Your task to perform on an android device: toggle notification dots Image 0: 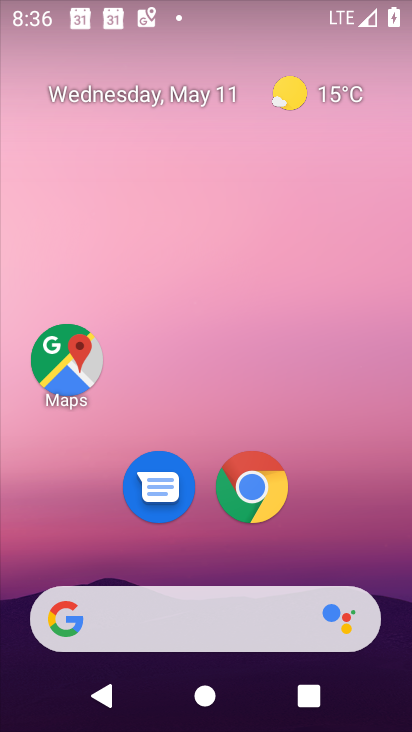
Step 0: drag from (266, 649) to (261, 174)
Your task to perform on an android device: toggle notification dots Image 1: 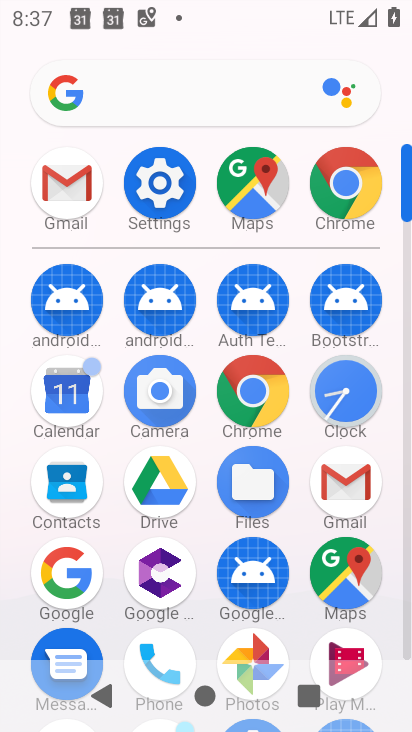
Step 1: drag from (222, 532) to (166, 288)
Your task to perform on an android device: toggle notification dots Image 2: 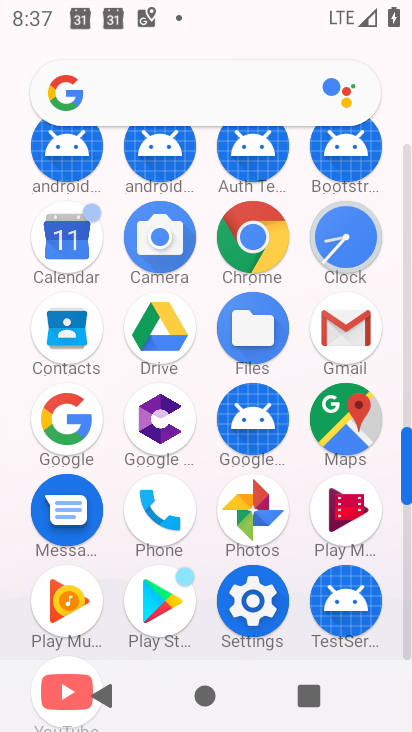
Step 2: click (244, 578)
Your task to perform on an android device: toggle notification dots Image 3: 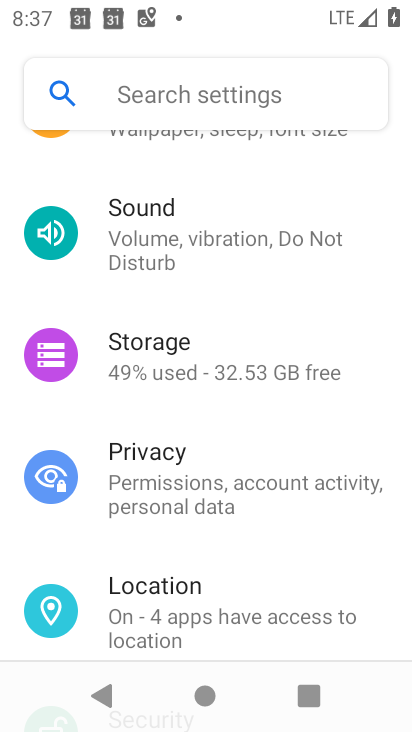
Step 3: click (148, 106)
Your task to perform on an android device: toggle notification dots Image 4: 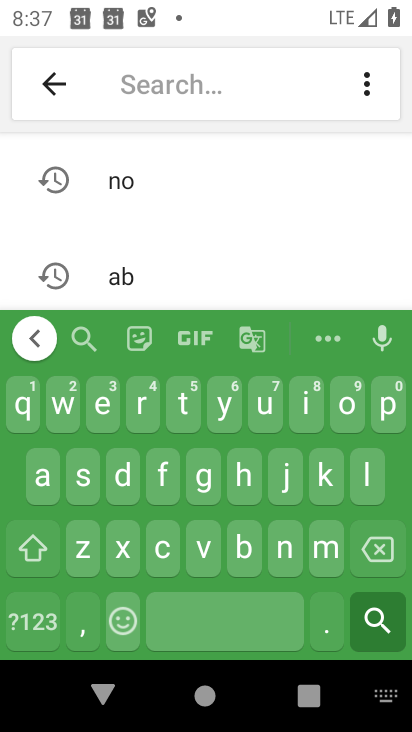
Step 4: click (126, 491)
Your task to perform on an android device: toggle notification dots Image 5: 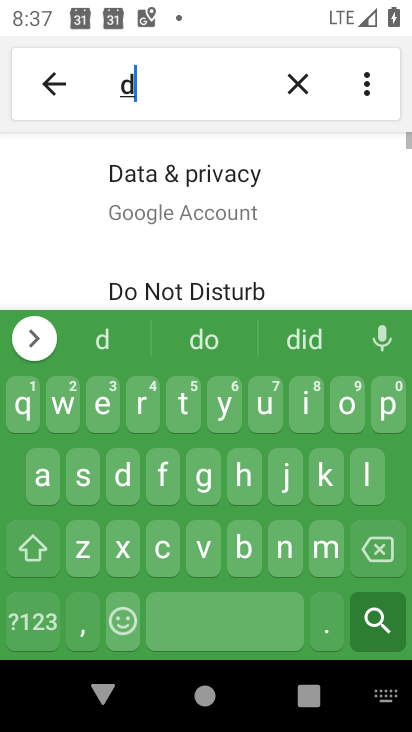
Step 5: click (356, 407)
Your task to perform on an android device: toggle notification dots Image 6: 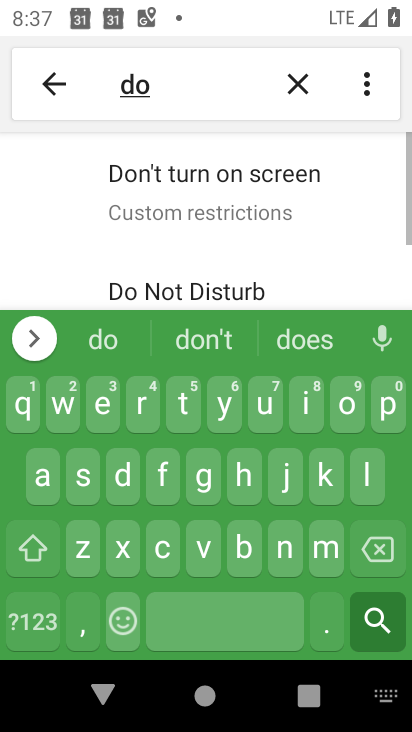
Step 6: click (186, 411)
Your task to perform on an android device: toggle notification dots Image 7: 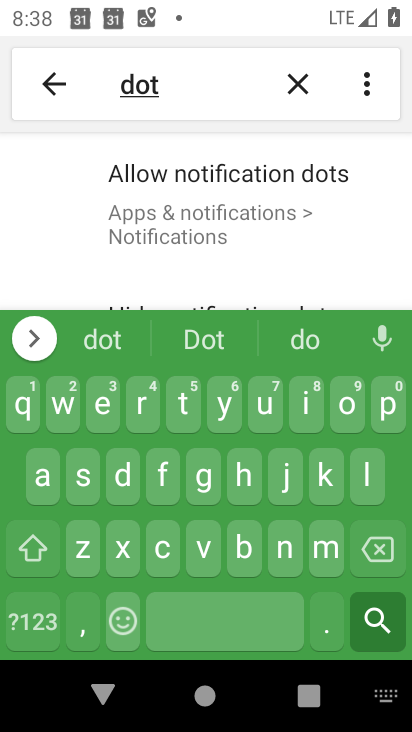
Step 7: click (240, 195)
Your task to perform on an android device: toggle notification dots Image 8: 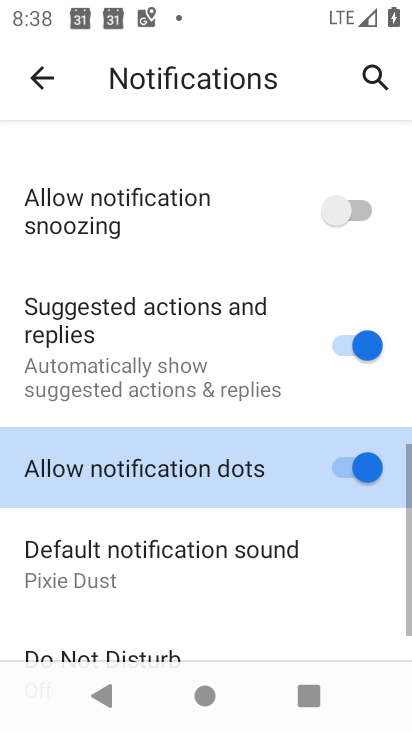
Step 8: click (210, 473)
Your task to perform on an android device: toggle notification dots Image 9: 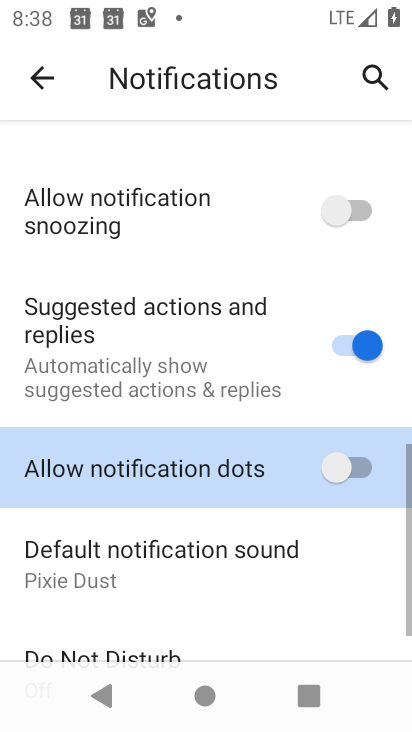
Step 9: click (213, 450)
Your task to perform on an android device: toggle notification dots Image 10: 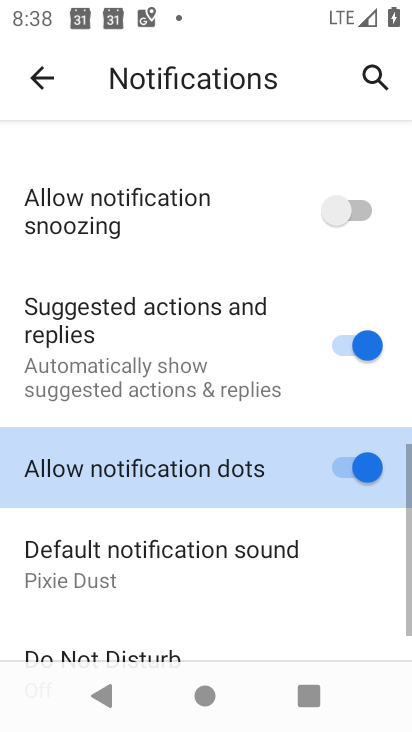
Step 10: task complete